Your task to perform on an android device: turn off improve location accuracy Image 0: 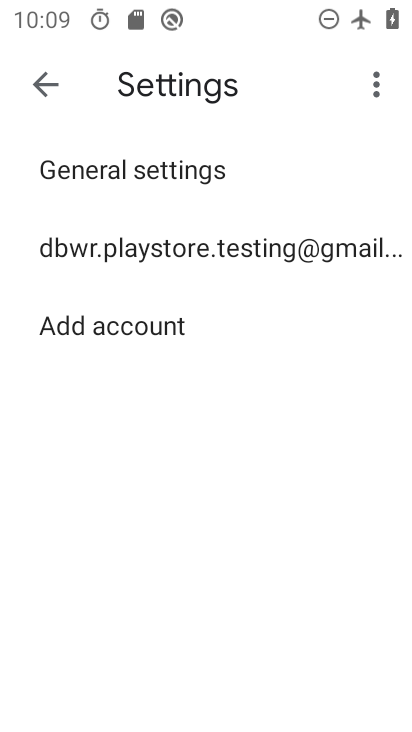
Step 0: press home button
Your task to perform on an android device: turn off improve location accuracy Image 1: 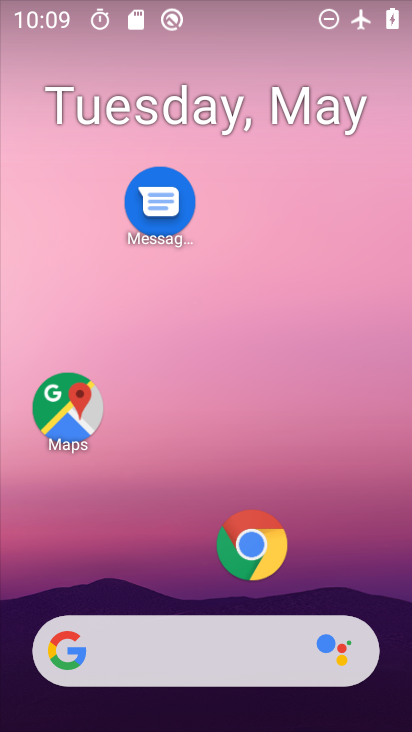
Step 1: drag from (188, 575) to (216, 215)
Your task to perform on an android device: turn off improve location accuracy Image 2: 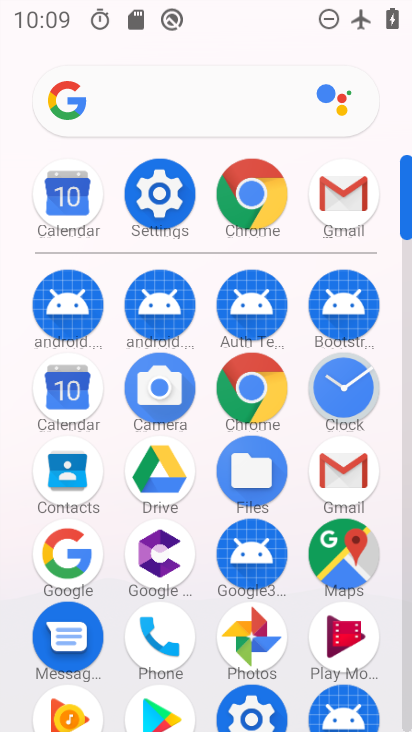
Step 2: click (183, 199)
Your task to perform on an android device: turn off improve location accuracy Image 3: 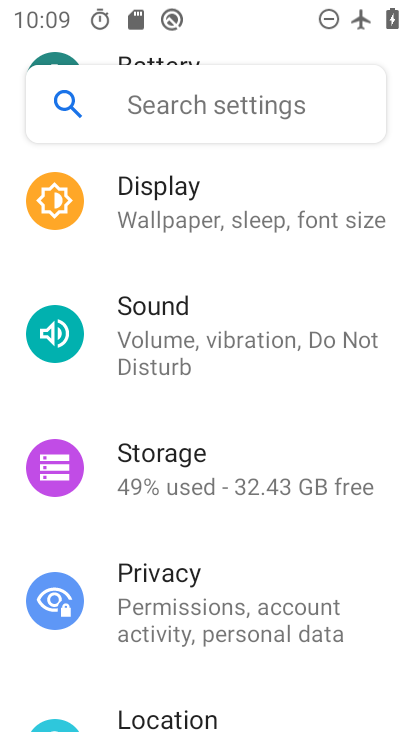
Step 3: drag from (235, 610) to (231, 382)
Your task to perform on an android device: turn off improve location accuracy Image 4: 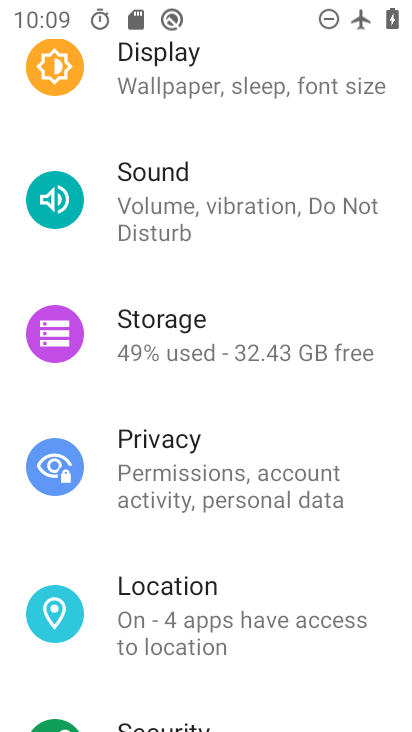
Step 4: click (181, 580)
Your task to perform on an android device: turn off improve location accuracy Image 5: 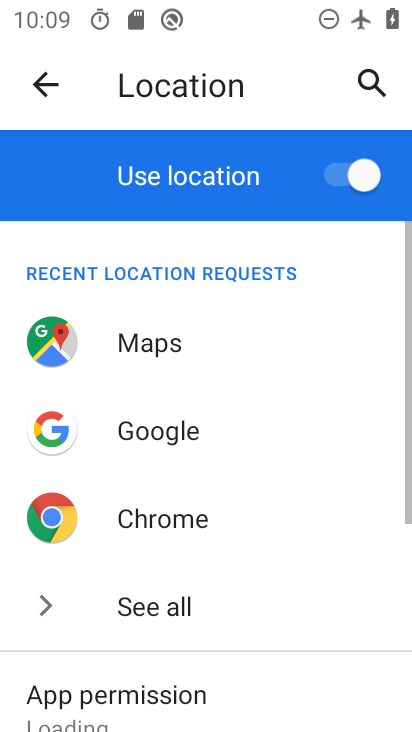
Step 5: drag from (196, 603) to (237, 327)
Your task to perform on an android device: turn off improve location accuracy Image 6: 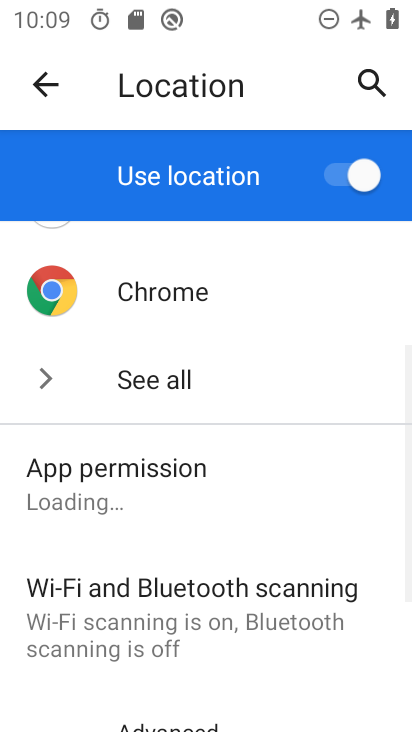
Step 6: drag from (197, 588) to (224, 372)
Your task to perform on an android device: turn off improve location accuracy Image 7: 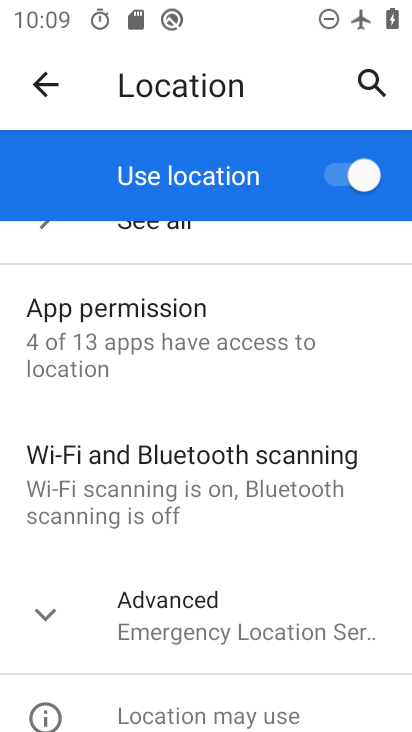
Step 7: click (233, 631)
Your task to perform on an android device: turn off improve location accuracy Image 8: 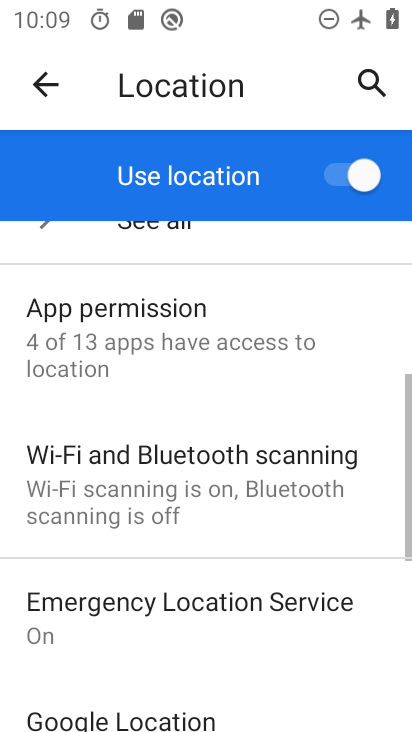
Step 8: drag from (240, 631) to (253, 359)
Your task to perform on an android device: turn off improve location accuracy Image 9: 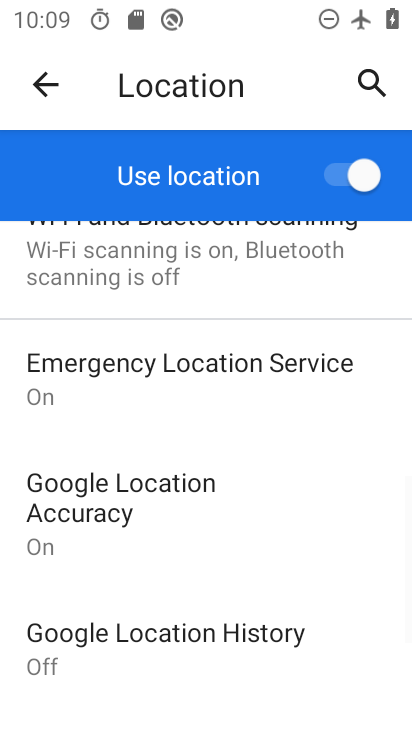
Step 9: drag from (213, 640) to (203, 562)
Your task to perform on an android device: turn off improve location accuracy Image 10: 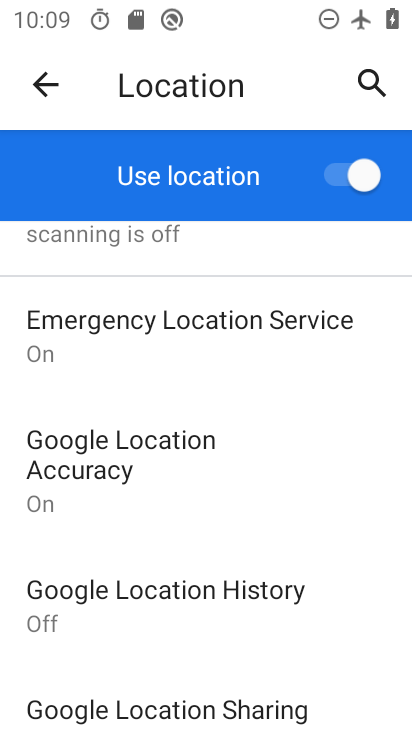
Step 10: click (162, 485)
Your task to perform on an android device: turn off improve location accuracy Image 11: 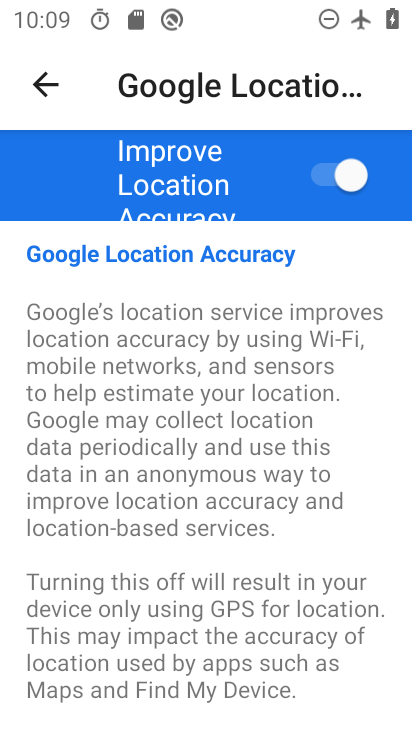
Step 11: click (325, 181)
Your task to perform on an android device: turn off improve location accuracy Image 12: 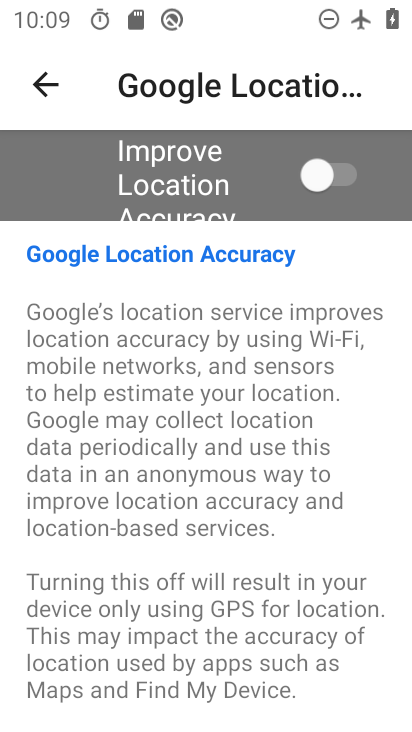
Step 12: task complete